Your task to perform on an android device: see tabs open on other devices in the chrome app Image 0: 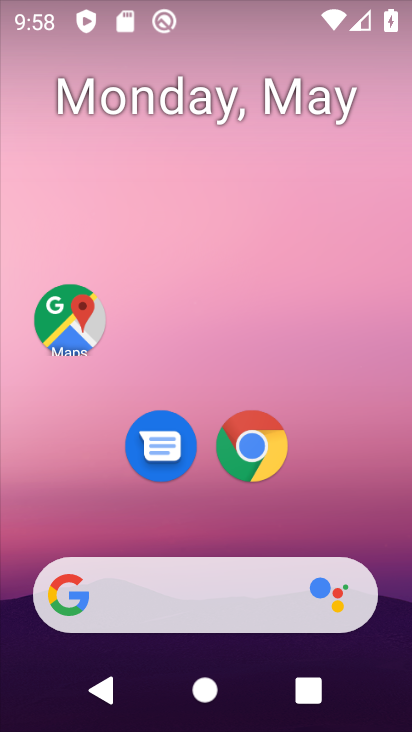
Step 0: click (265, 458)
Your task to perform on an android device: see tabs open on other devices in the chrome app Image 1: 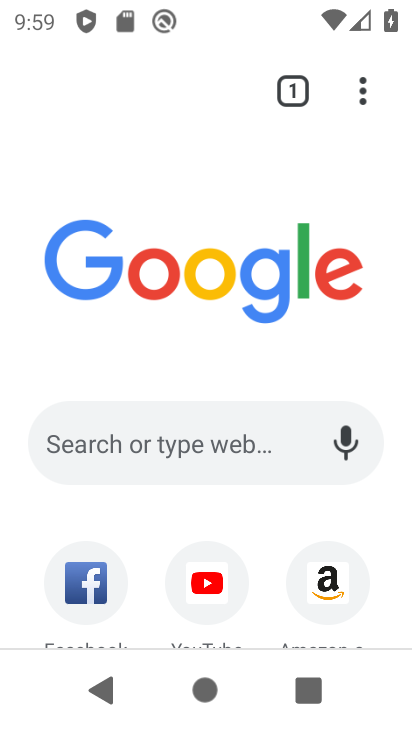
Step 1: click (370, 96)
Your task to perform on an android device: see tabs open on other devices in the chrome app Image 2: 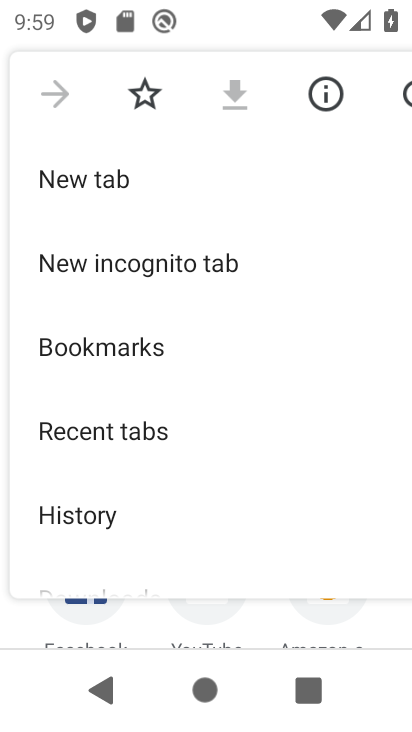
Step 2: click (149, 441)
Your task to perform on an android device: see tabs open on other devices in the chrome app Image 3: 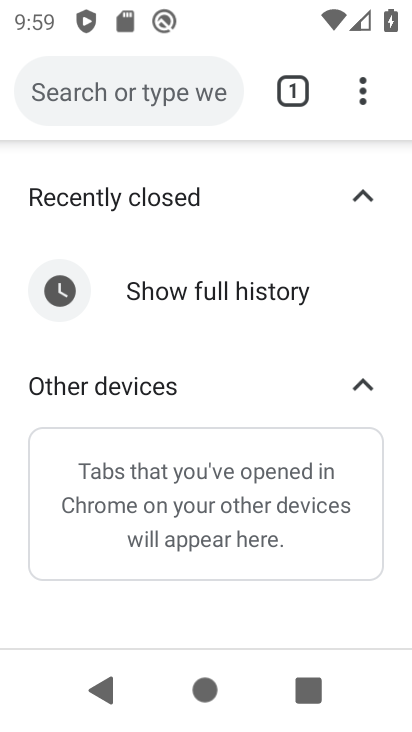
Step 3: task complete